Your task to perform on an android device: Do I have any events this weekend? Image 0: 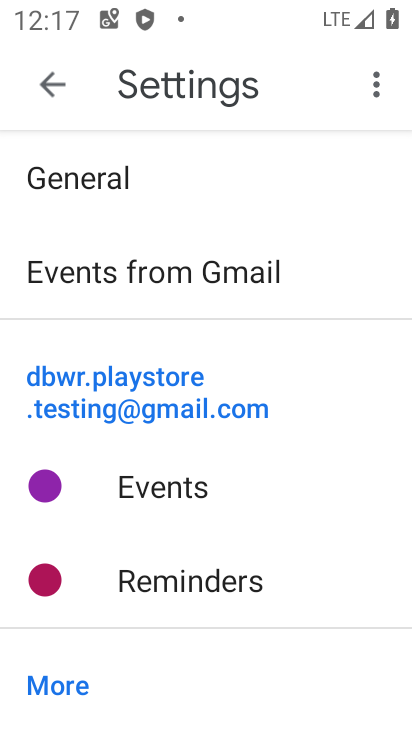
Step 0: press home button
Your task to perform on an android device: Do I have any events this weekend? Image 1: 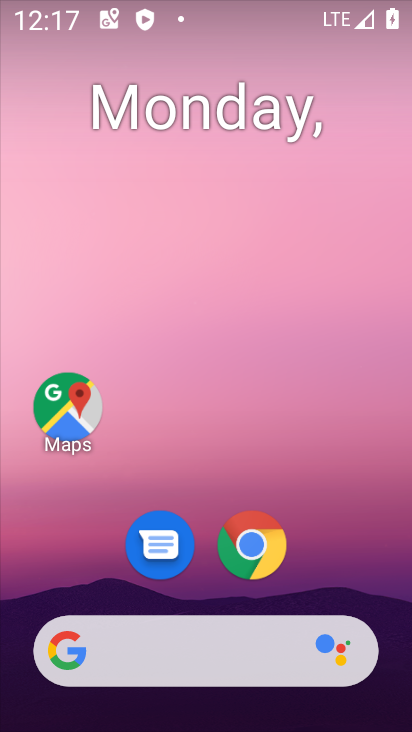
Step 1: drag from (359, 539) to (379, 223)
Your task to perform on an android device: Do I have any events this weekend? Image 2: 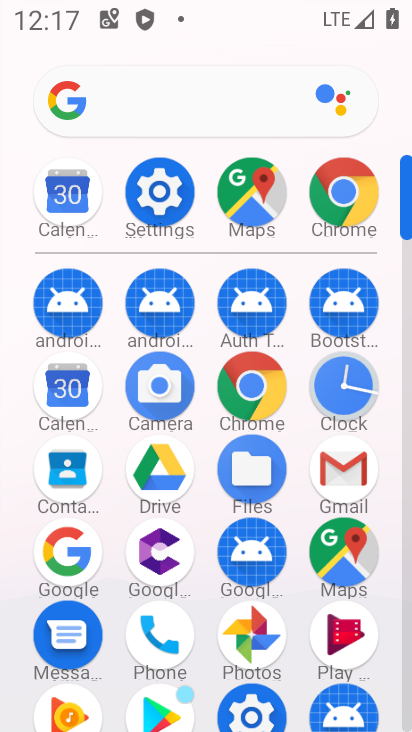
Step 2: click (66, 409)
Your task to perform on an android device: Do I have any events this weekend? Image 3: 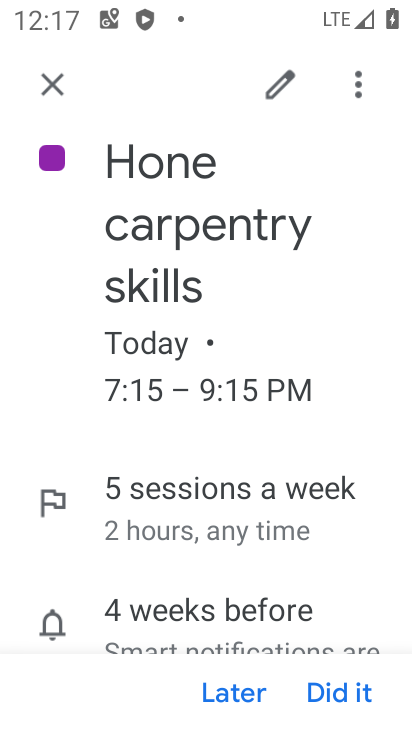
Step 3: click (49, 96)
Your task to perform on an android device: Do I have any events this weekend? Image 4: 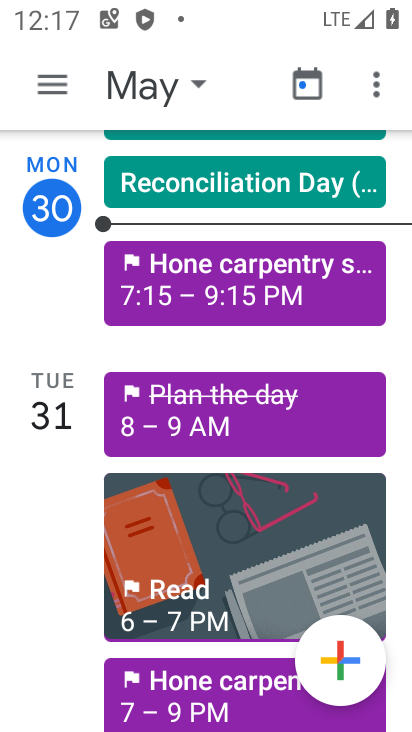
Step 4: drag from (227, 523) to (244, 282)
Your task to perform on an android device: Do I have any events this weekend? Image 5: 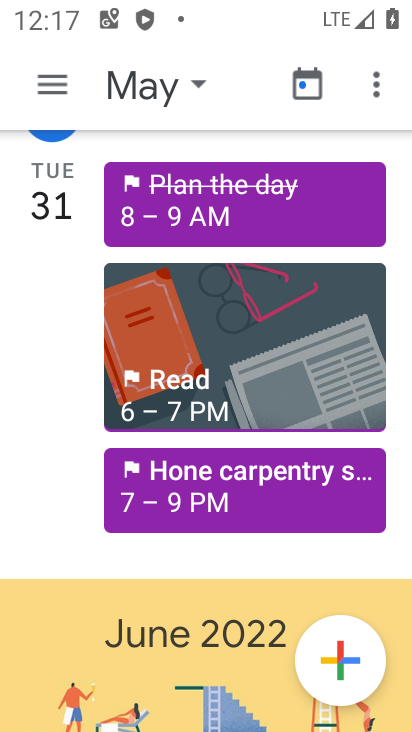
Step 5: drag from (232, 589) to (241, 254)
Your task to perform on an android device: Do I have any events this weekend? Image 6: 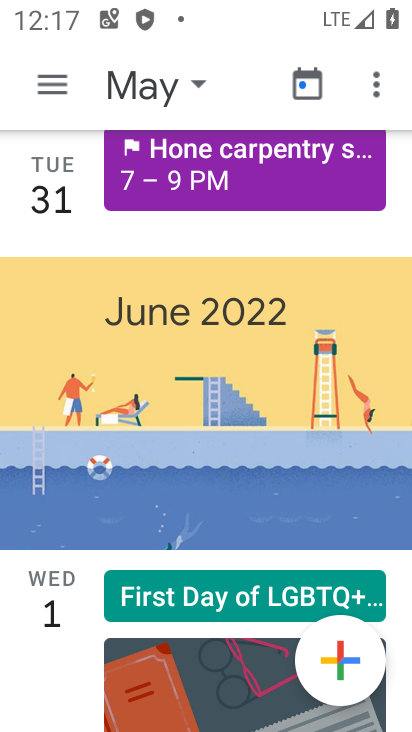
Step 6: drag from (223, 615) to (244, 199)
Your task to perform on an android device: Do I have any events this weekend? Image 7: 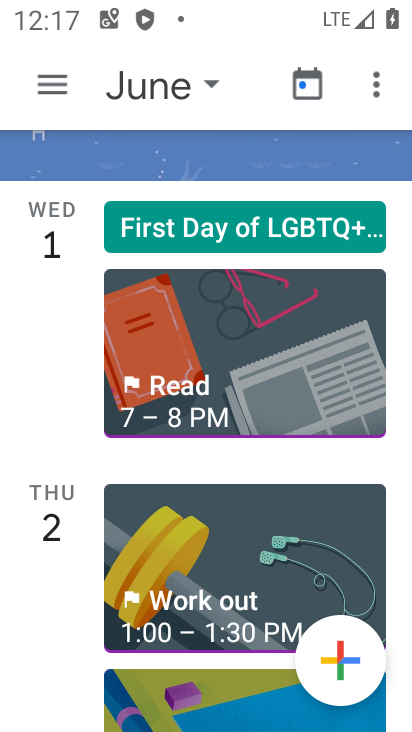
Step 7: drag from (200, 597) to (228, 228)
Your task to perform on an android device: Do I have any events this weekend? Image 8: 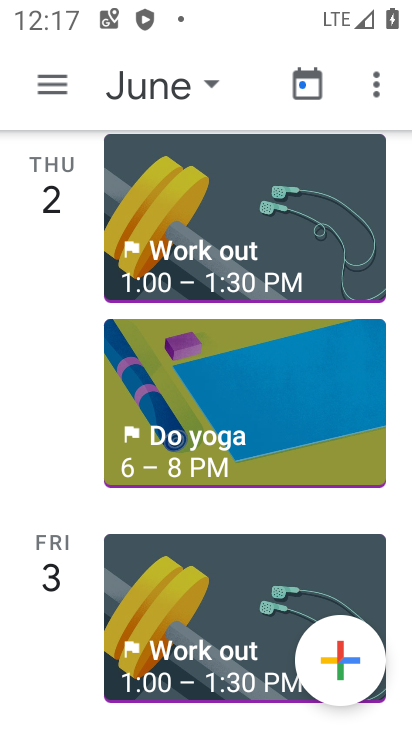
Step 8: drag from (177, 634) to (223, 181)
Your task to perform on an android device: Do I have any events this weekend? Image 9: 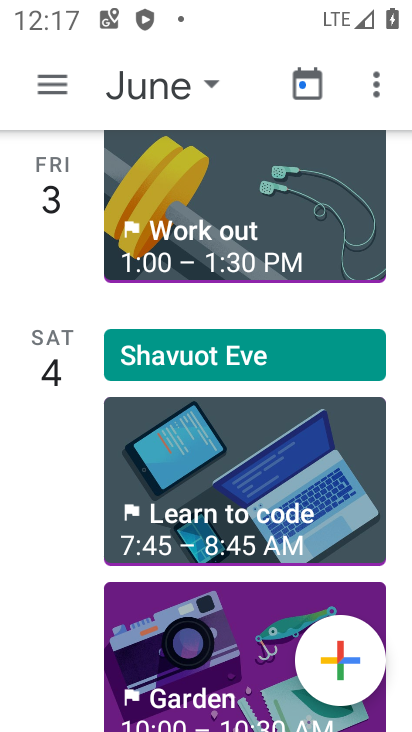
Step 9: drag from (174, 685) to (233, 355)
Your task to perform on an android device: Do I have any events this weekend? Image 10: 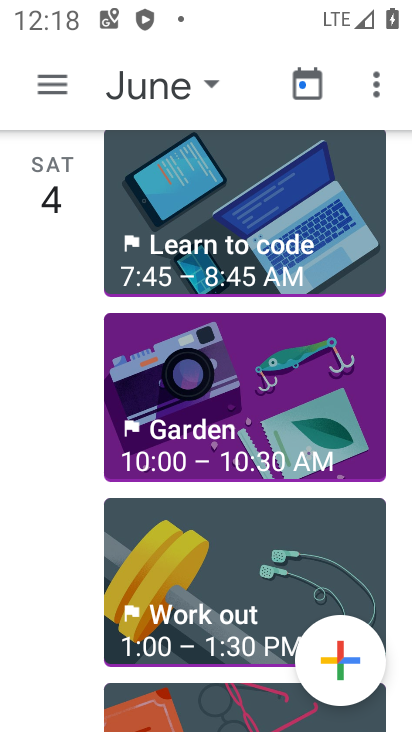
Step 10: click (316, 240)
Your task to perform on an android device: Do I have any events this weekend? Image 11: 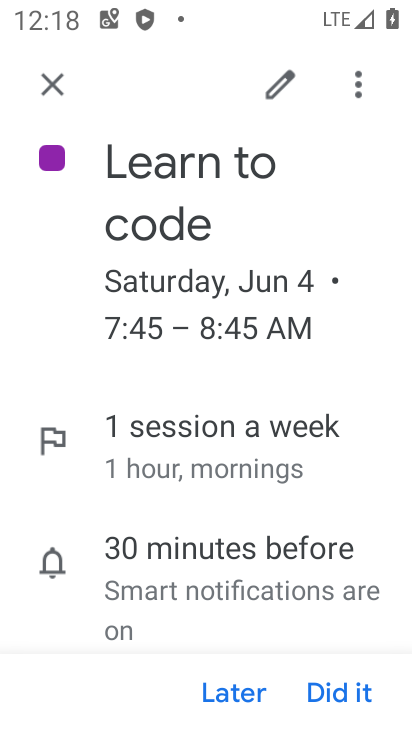
Step 11: task complete